Your task to perform on an android device: add a contact Image 0: 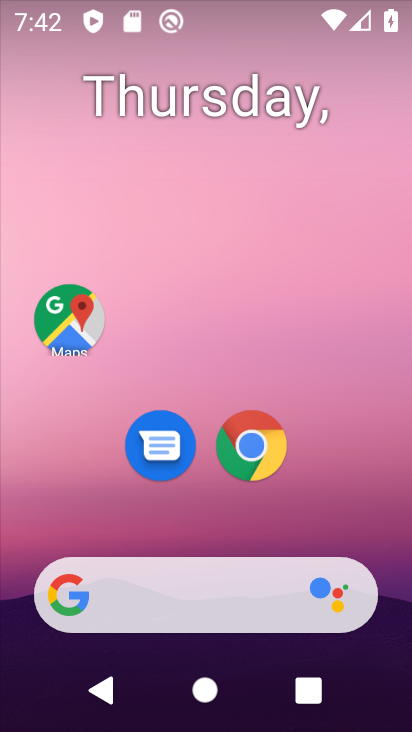
Step 0: drag from (325, 548) to (340, 2)
Your task to perform on an android device: add a contact Image 1: 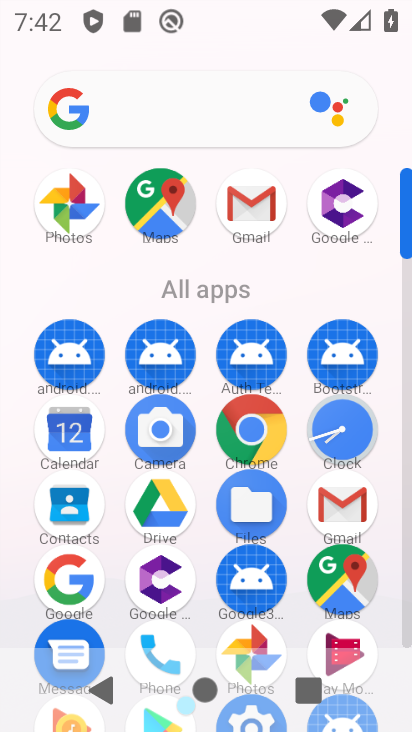
Step 1: click (74, 508)
Your task to perform on an android device: add a contact Image 2: 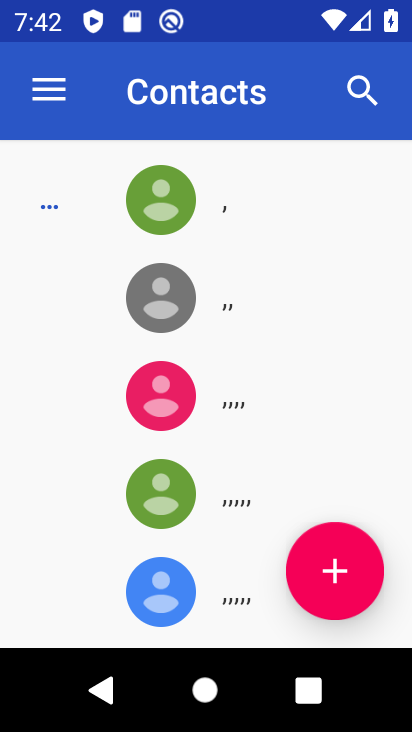
Step 2: click (334, 567)
Your task to perform on an android device: add a contact Image 3: 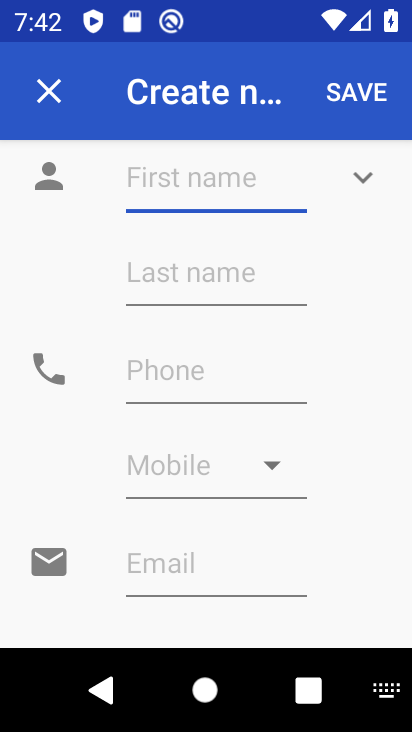
Step 3: click (138, 192)
Your task to perform on an android device: add a contact Image 4: 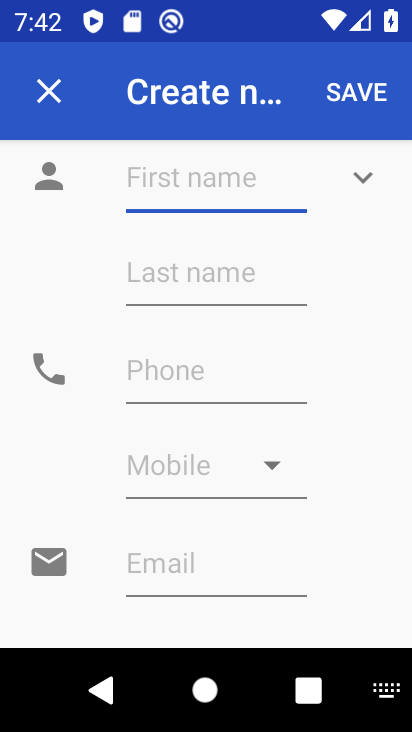
Step 4: type "sugu"
Your task to perform on an android device: add a contact Image 5: 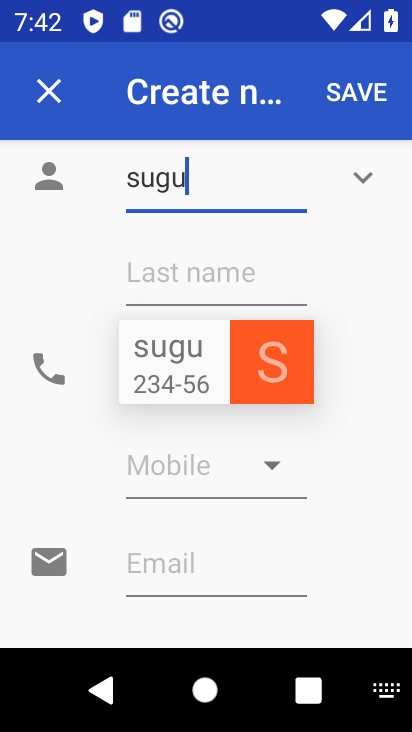
Step 5: click (220, 389)
Your task to perform on an android device: add a contact Image 6: 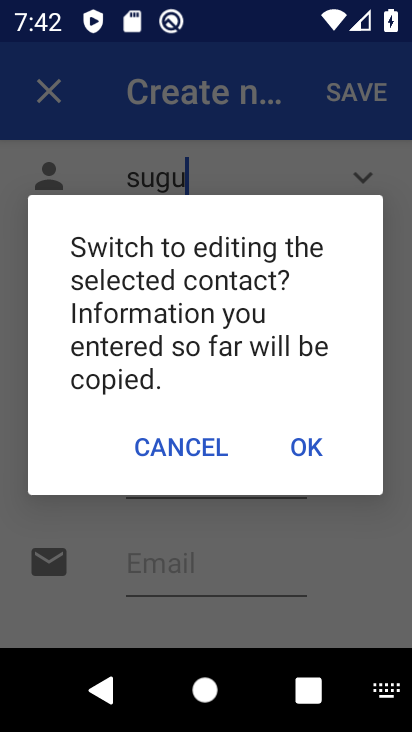
Step 6: click (320, 384)
Your task to perform on an android device: add a contact Image 7: 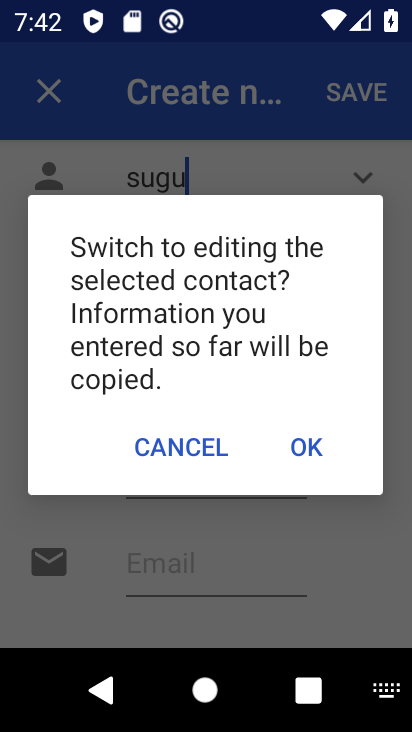
Step 7: click (171, 448)
Your task to perform on an android device: add a contact Image 8: 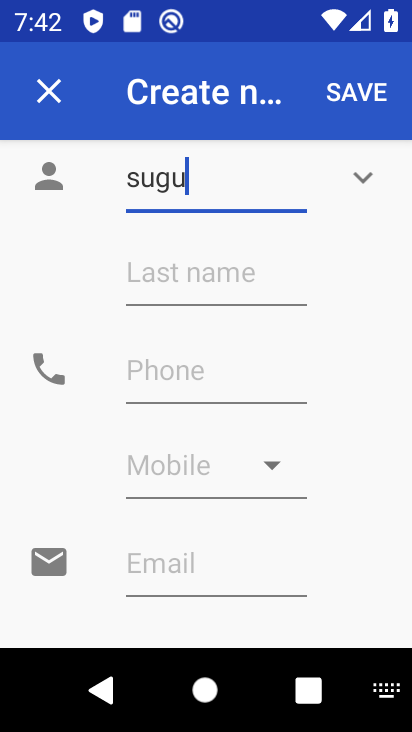
Step 8: click (199, 393)
Your task to perform on an android device: add a contact Image 9: 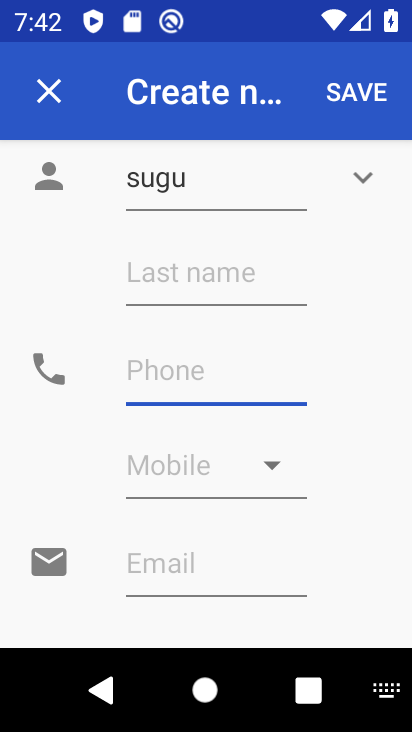
Step 9: type "76889777"
Your task to perform on an android device: add a contact Image 10: 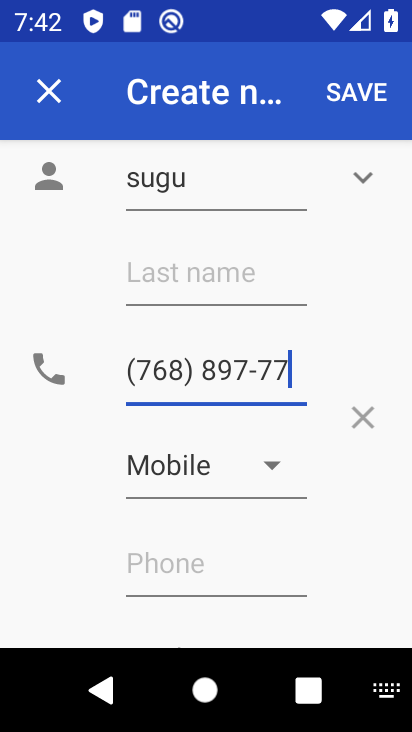
Step 10: click (354, 107)
Your task to perform on an android device: add a contact Image 11: 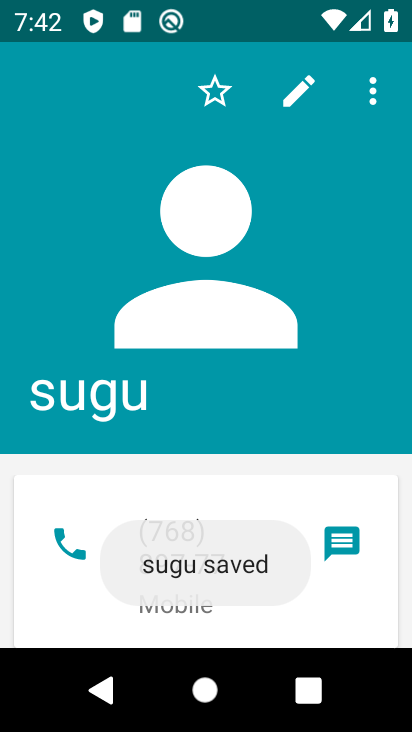
Step 11: task complete